Your task to perform on an android device: add a label to a message in the gmail app Image 0: 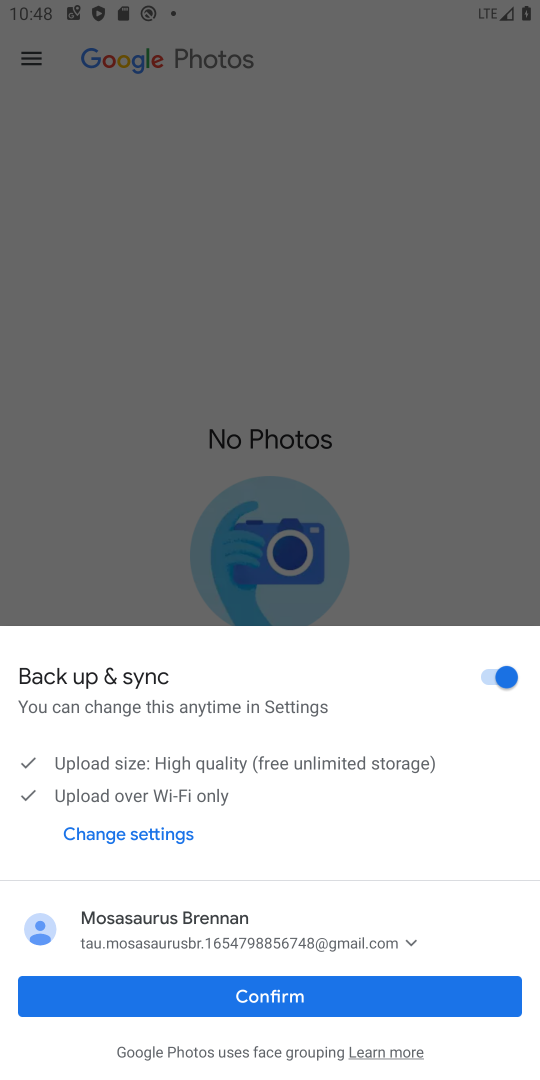
Step 0: press home button
Your task to perform on an android device: add a label to a message in the gmail app Image 1: 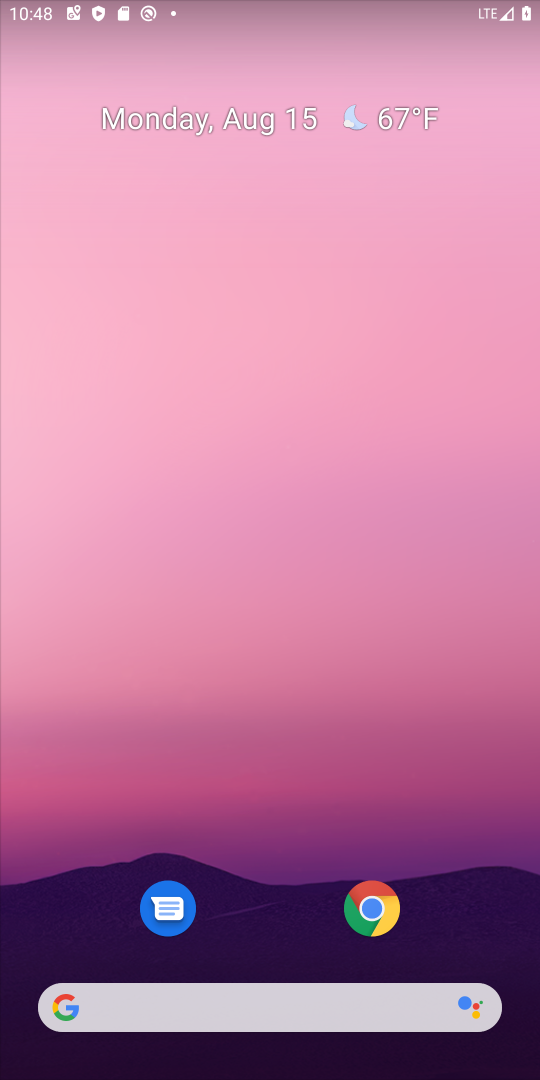
Step 1: drag from (260, 971) to (233, 301)
Your task to perform on an android device: add a label to a message in the gmail app Image 2: 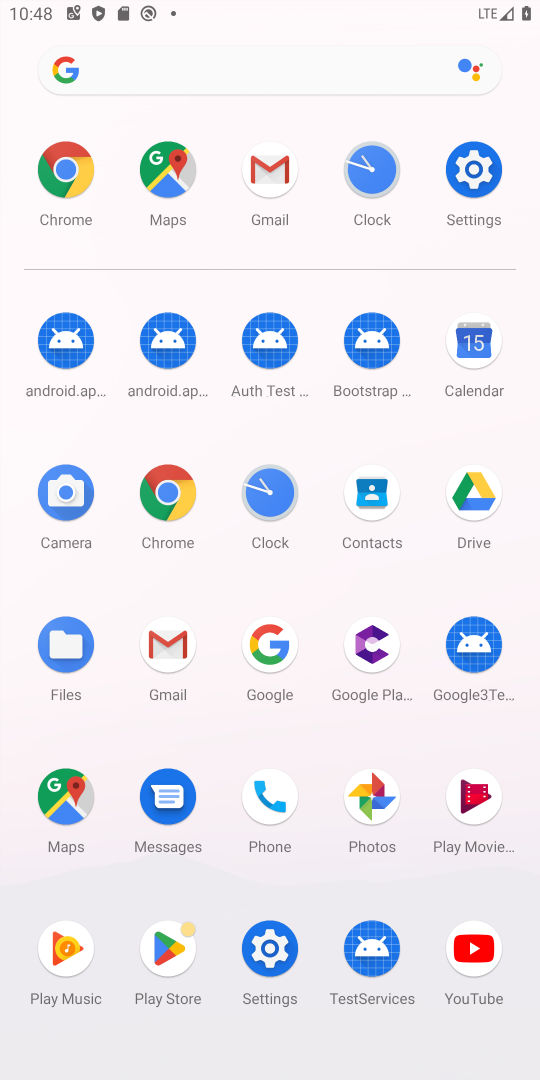
Step 2: click (269, 175)
Your task to perform on an android device: add a label to a message in the gmail app Image 3: 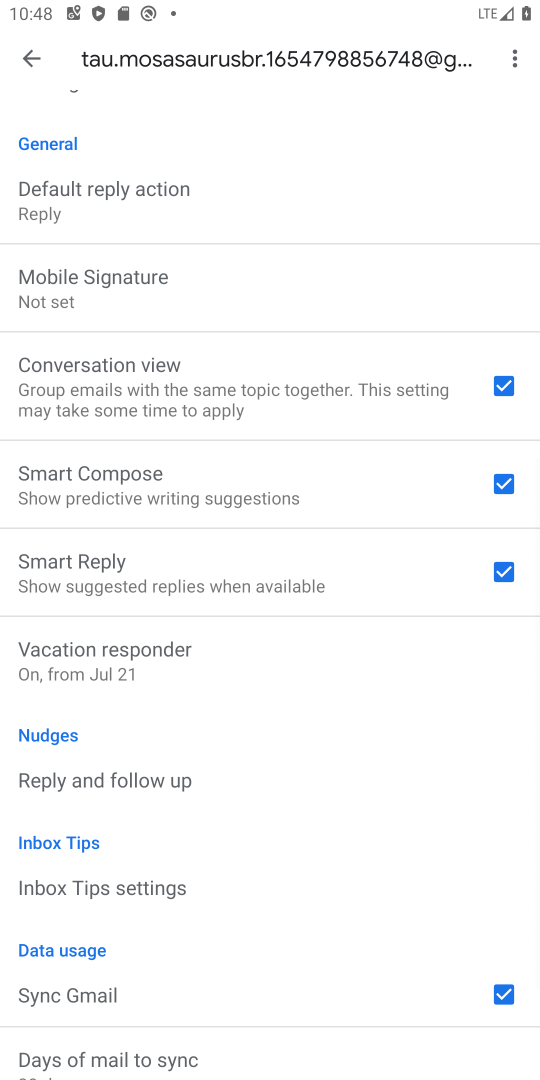
Step 3: click (28, 53)
Your task to perform on an android device: add a label to a message in the gmail app Image 4: 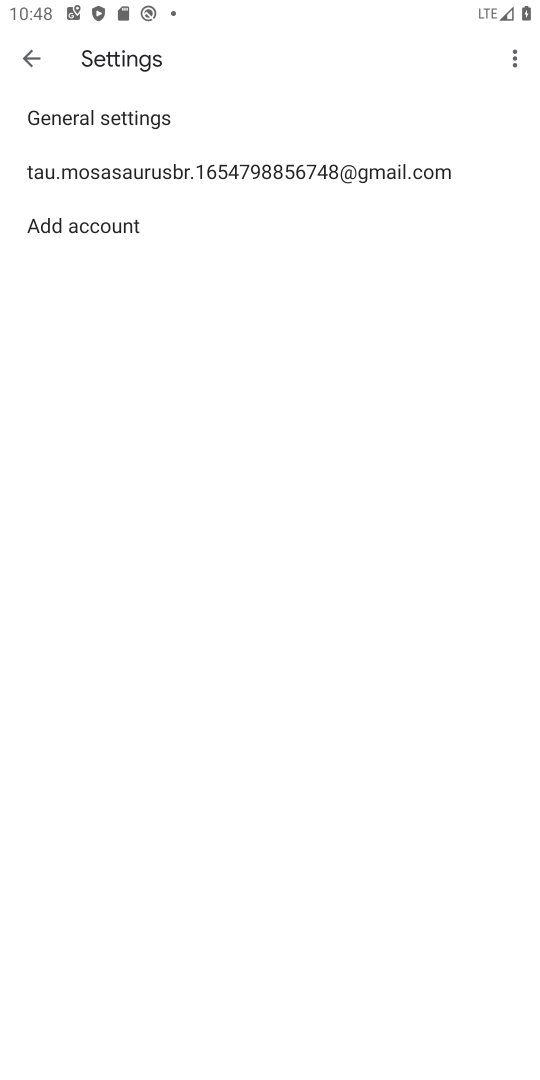
Step 4: click (28, 53)
Your task to perform on an android device: add a label to a message in the gmail app Image 5: 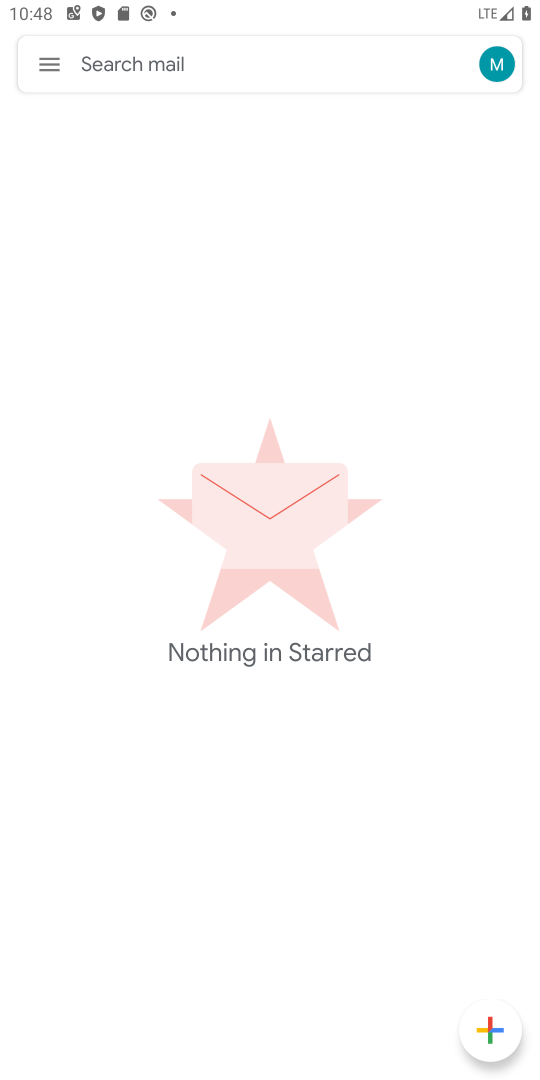
Step 5: task complete